Your task to perform on an android device: snooze an email in the gmail app Image 0: 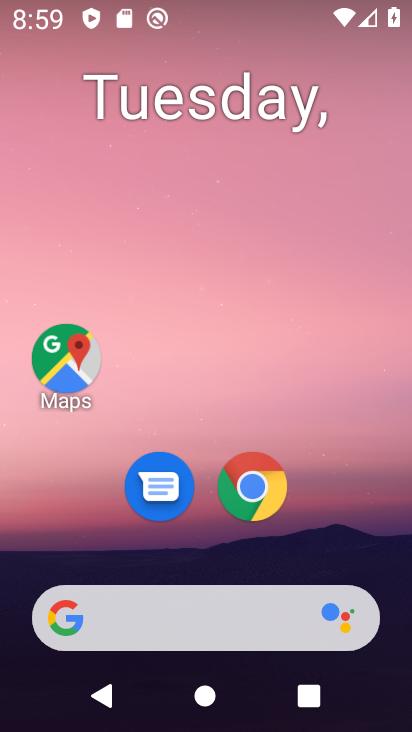
Step 0: press home button
Your task to perform on an android device: snooze an email in the gmail app Image 1: 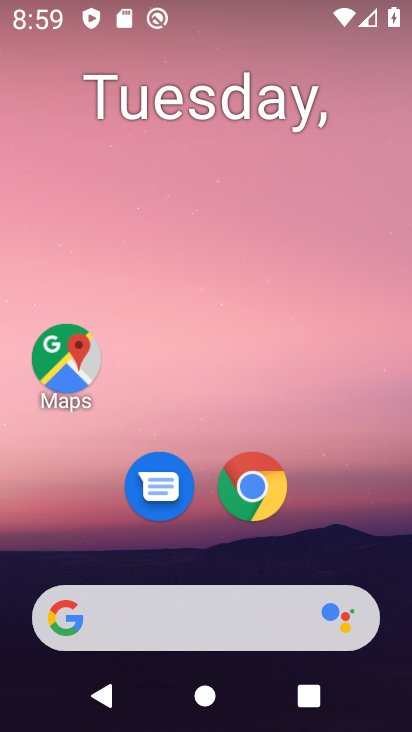
Step 1: drag from (359, 525) to (360, 188)
Your task to perform on an android device: snooze an email in the gmail app Image 2: 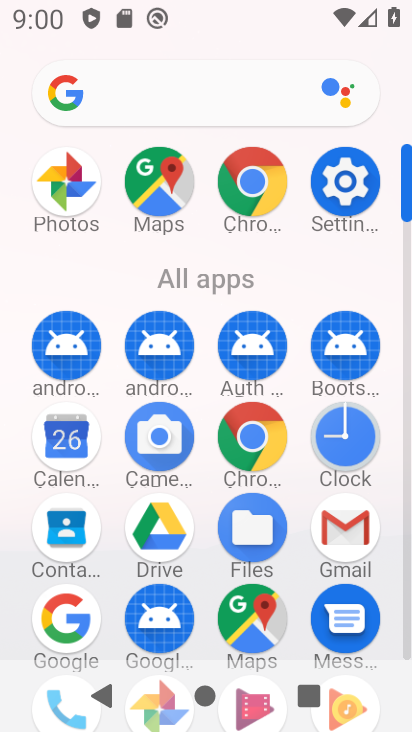
Step 2: click (342, 522)
Your task to perform on an android device: snooze an email in the gmail app Image 3: 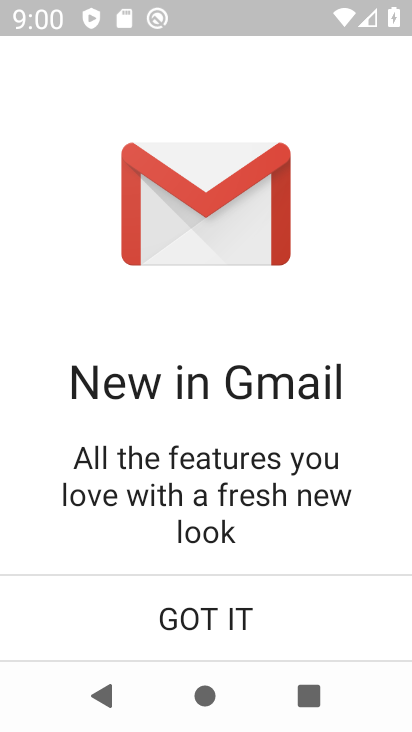
Step 3: click (278, 606)
Your task to perform on an android device: snooze an email in the gmail app Image 4: 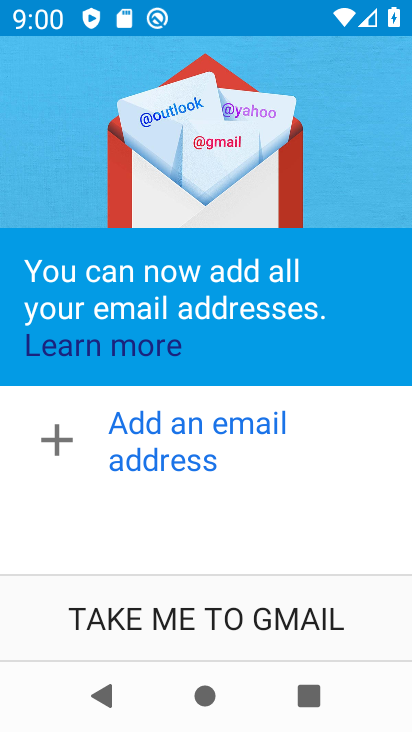
Step 4: click (256, 623)
Your task to perform on an android device: snooze an email in the gmail app Image 5: 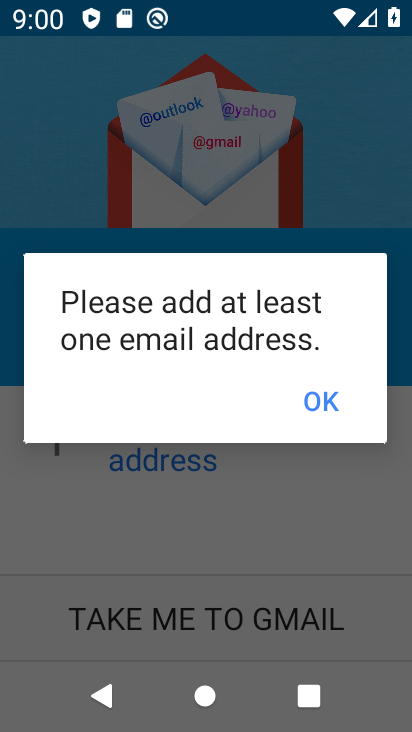
Step 5: task complete